Your task to perform on an android device: set the timer Image 0: 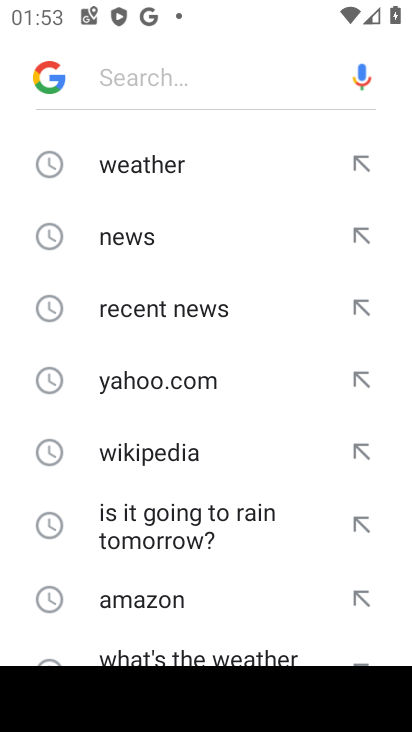
Step 0: press back button
Your task to perform on an android device: set the timer Image 1: 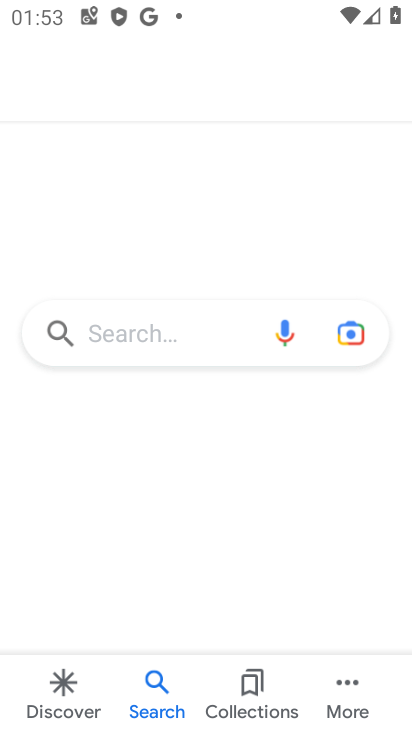
Step 1: press back button
Your task to perform on an android device: set the timer Image 2: 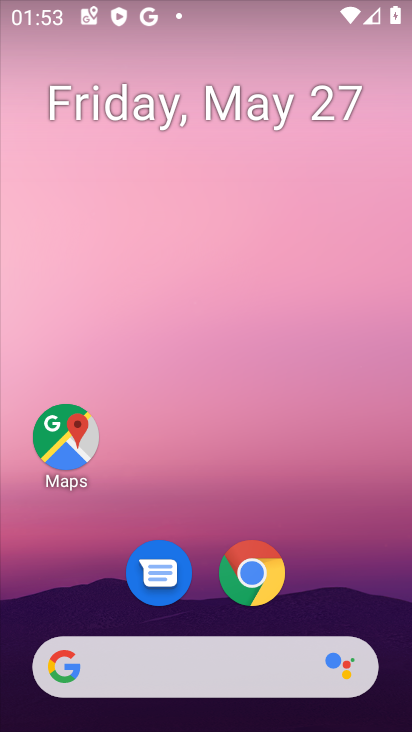
Step 2: drag from (200, 608) to (184, 100)
Your task to perform on an android device: set the timer Image 3: 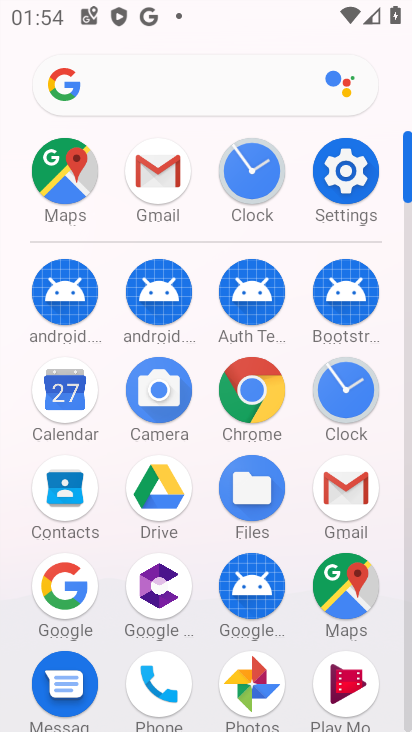
Step 3: click (337, 391)
Your task to perform on an android device: set the timer Image 4: 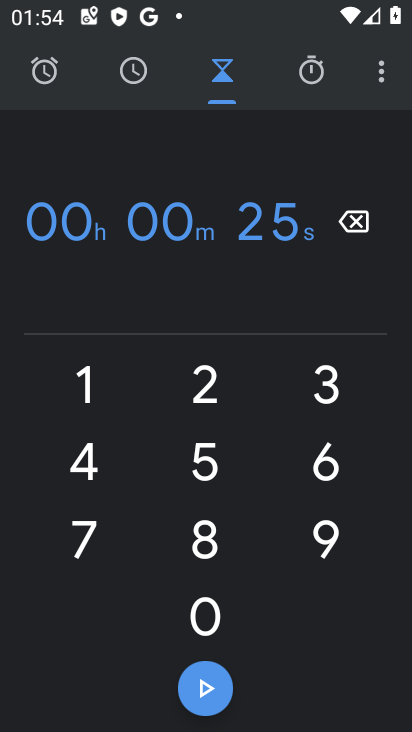
Step 4: click (203, 390)
Your task to perform on an android device: set the timer Image 5: 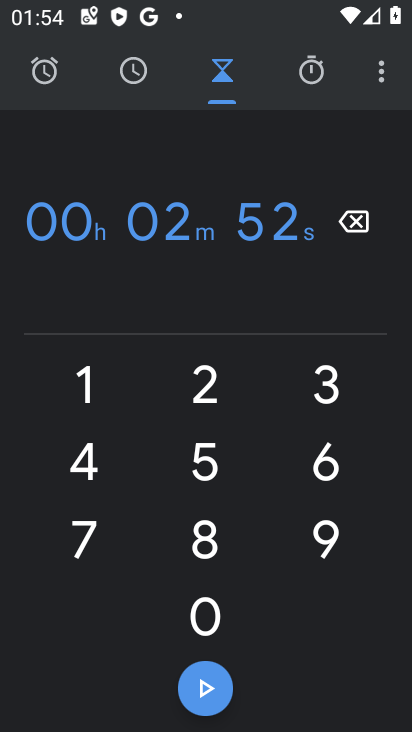
Step 5: task complete